Your task to perform on an android device: Go to settings Image 0: 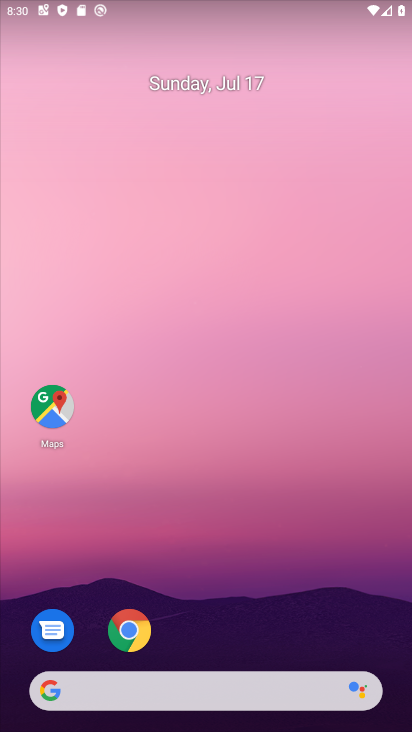
Step 0: drag from (362, 559) to (367, 60)
Your task to perform on an android device: Go to settings Image 1: 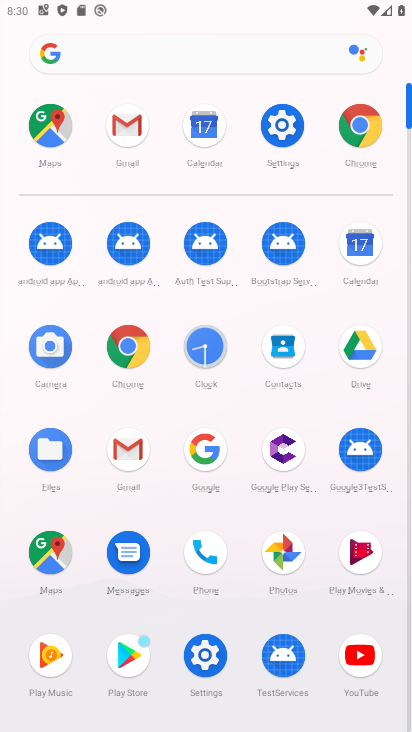
Step 1: click (283, 140)
Your task to perform on an android device: Go to settings Image 2: 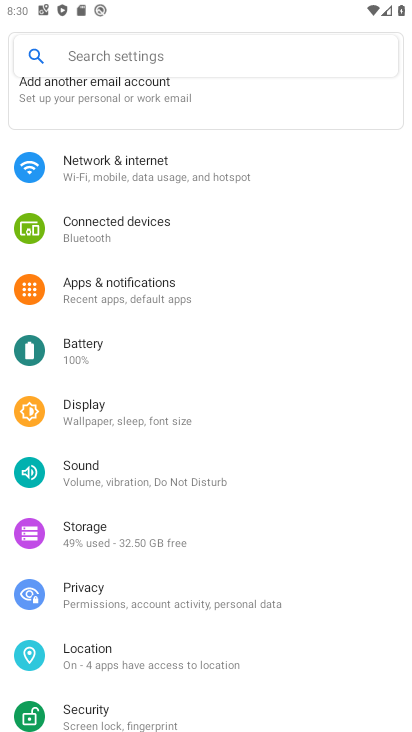
Step 2: task complete